Your task to perform on an android device: set an alarm Image 0: 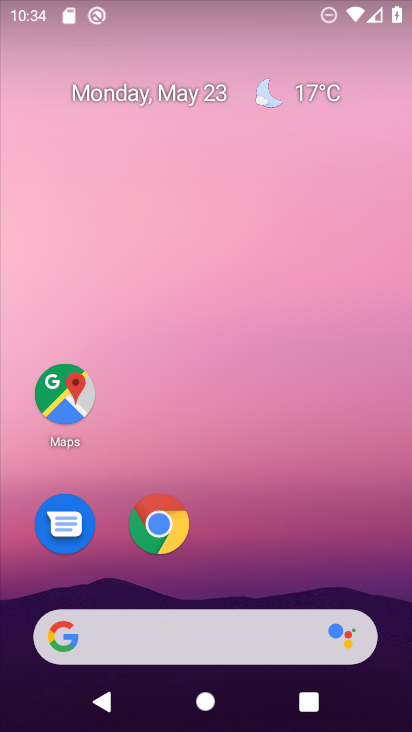
Step 0: drag from (241, 578) to (233, 216)
Your task to perform on an android device: set an alarm Image 1: 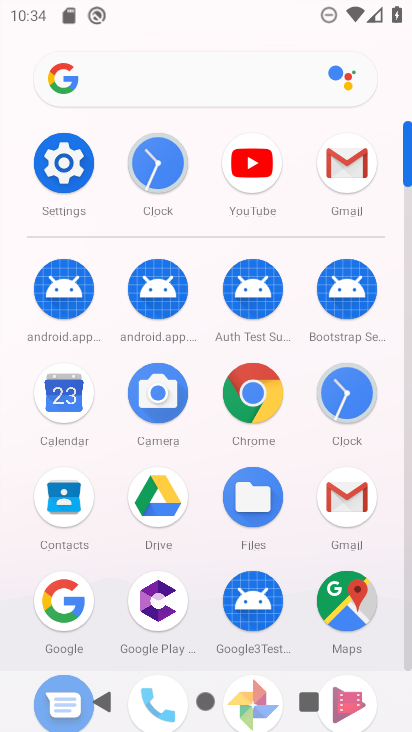
Step 1: click (145, 185)
Your task to perform on an android device: set an alarm Image 2: 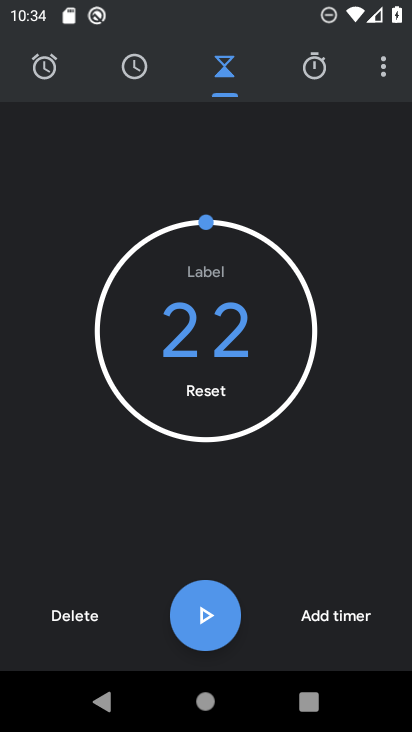
Step 2: click (44, 71)
Your task to perform on an android device: set an alarm Image 3: 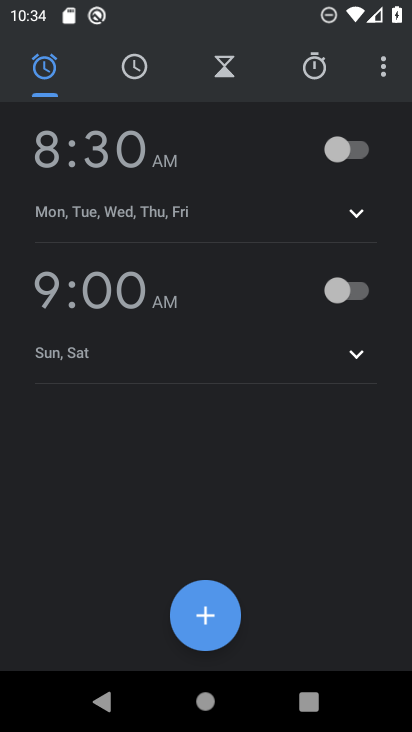
Step 3: click (353, 157)
Your task to perform on an android device: set an alarm Image 4: 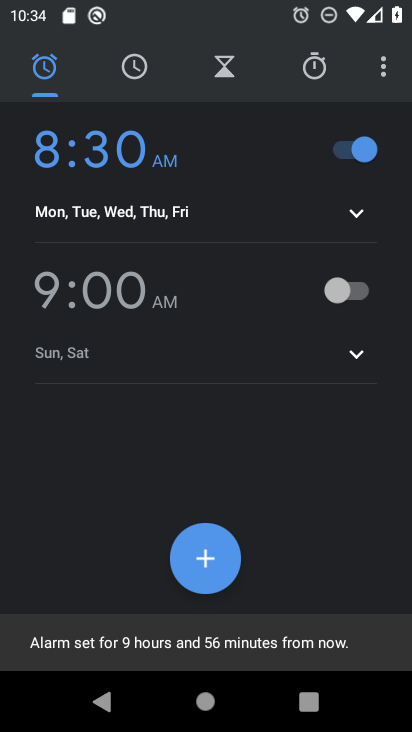
Step 4: task complete